Your task to perform on an android device: set the stopwatch Image 0: 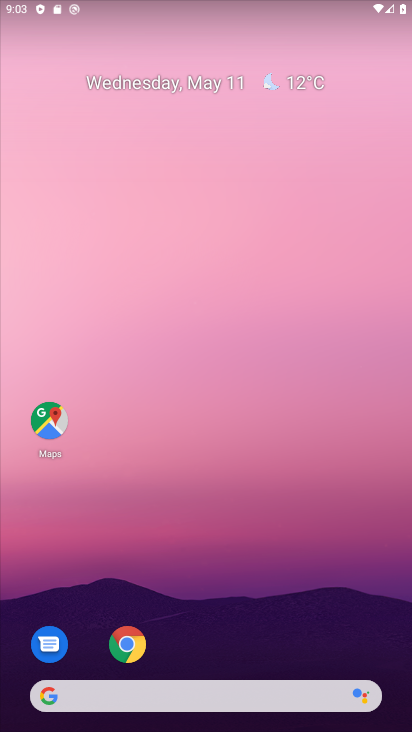
Step 0: drag from (257, 647) to (288, 138)
Your task to perform on an android device: set the stopwatch Image 1: 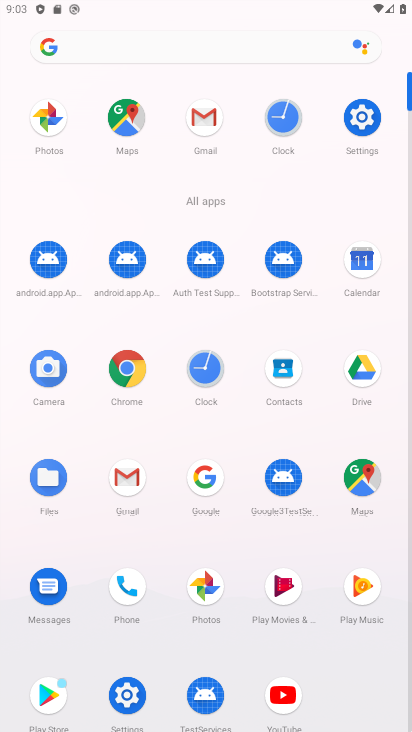
Step 1: click (216, 386)
Your task to perform on an android device: set the stopwatch Image 2: 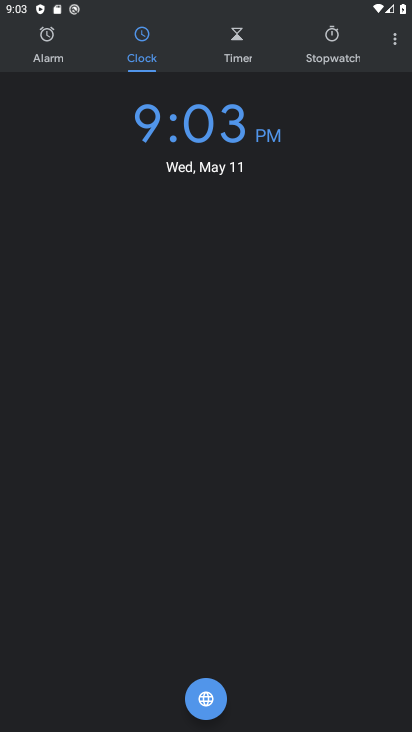
Step 2: click (315, 12)
Your task to perform on an android device: set the stopwatch Image 3: 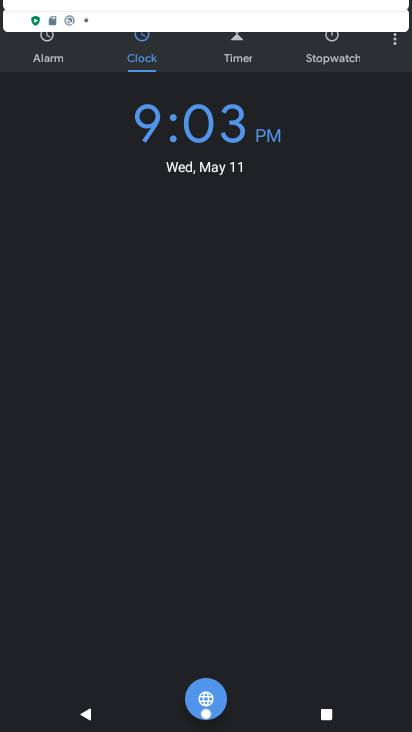
Step 3: click (322, 30)
Your task to perform on an android device: set the stopwatch Image 4: 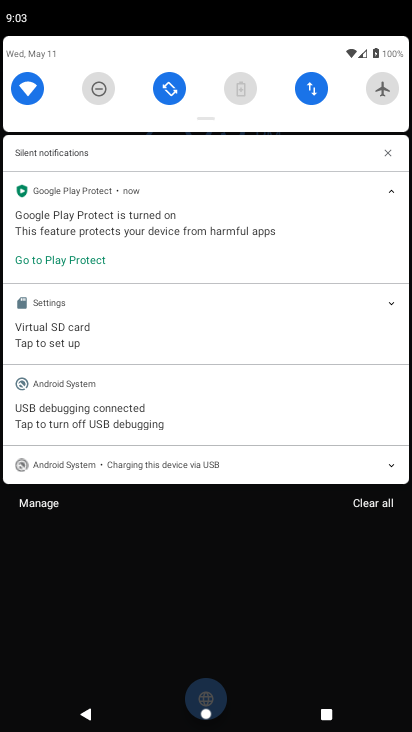
Step 4: click (249, 522)
Your task to perform on an android device: set the stopwatch Image 5: 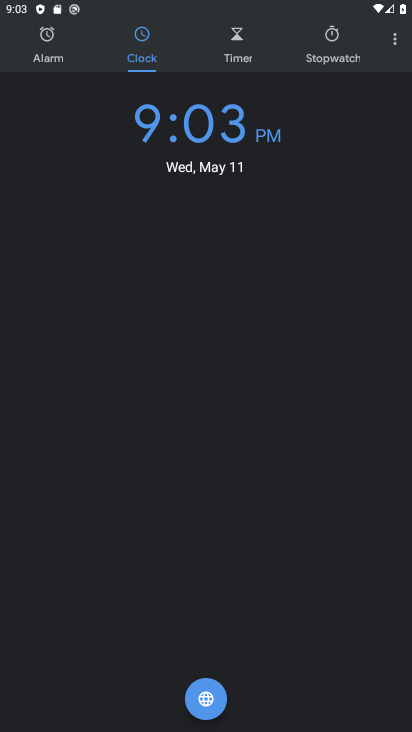
Step 5: click (330, 56)
Your task to perform on an android device: set the stopwatch Image 6: 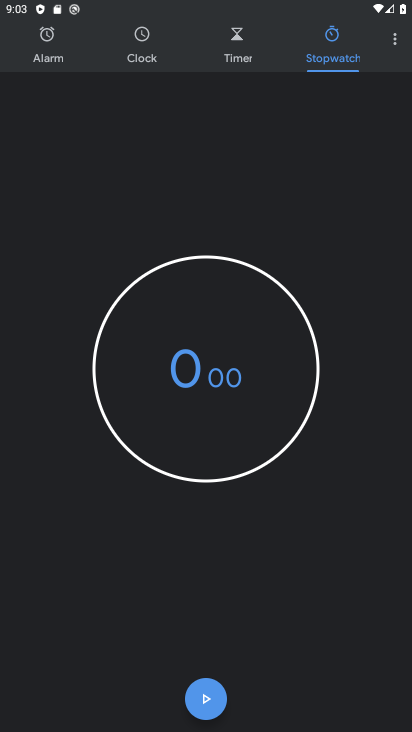
Step 6: task complete